Your task to perform on an android device: search for starred emails in the gmail app Image 0: 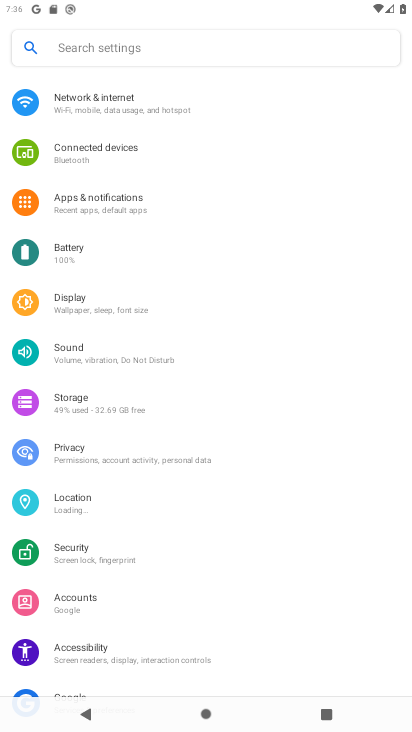
Step 0: drag from (214, 638) to (209, 463)
Your task to perform on an android device: search for starred emails in the gmail app Image 1: 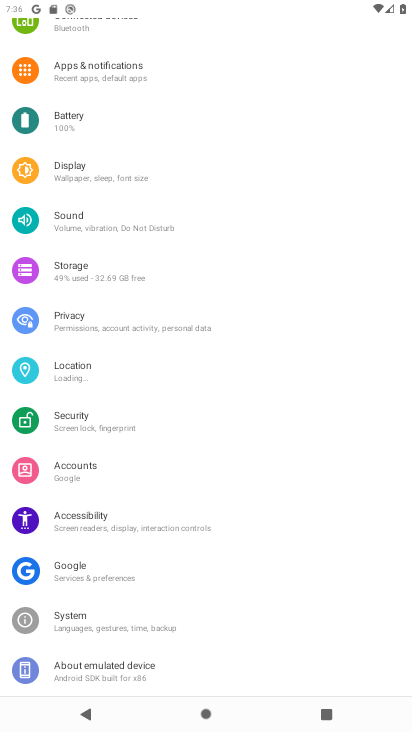
Step 1: press home button
Your task to perform on an android device: search for starred emails in the gmail app Image 2: 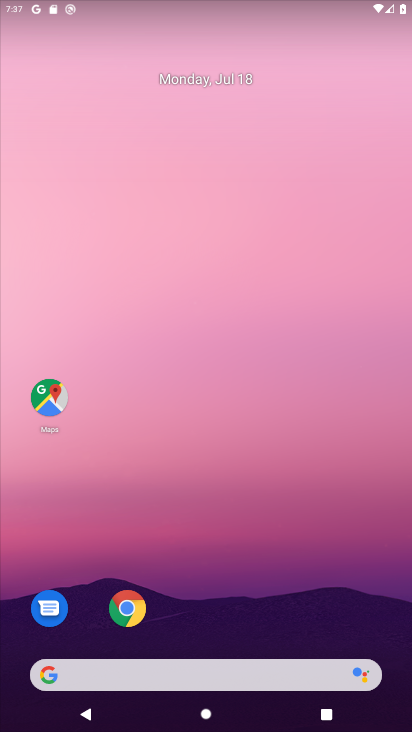
Step 2: drag from (220, 652) to (208, 19)
Your task to perform on an android device: search for starred emails in the gmail app Image 3: 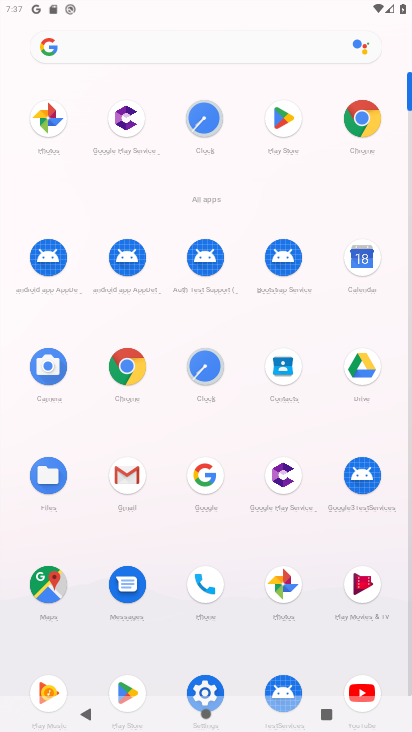
Step 3: click (124, 476)
Your task to perform on an android device: search for starred emails in the gmail app Image 4: 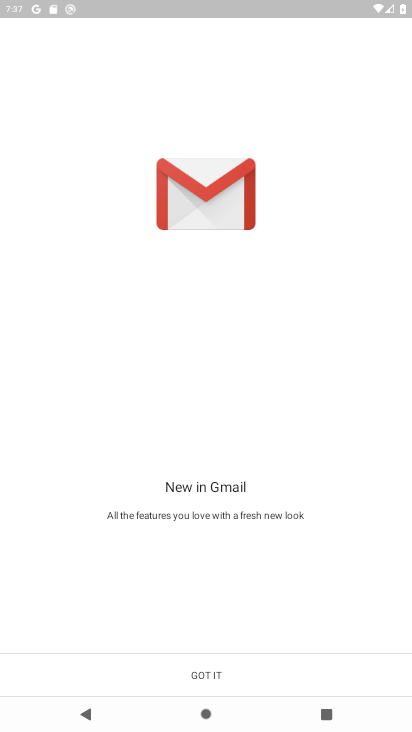
Step 4: click (199, 667)
Your task to perform on an android device: search for starred emails in the gmail app Image 5: 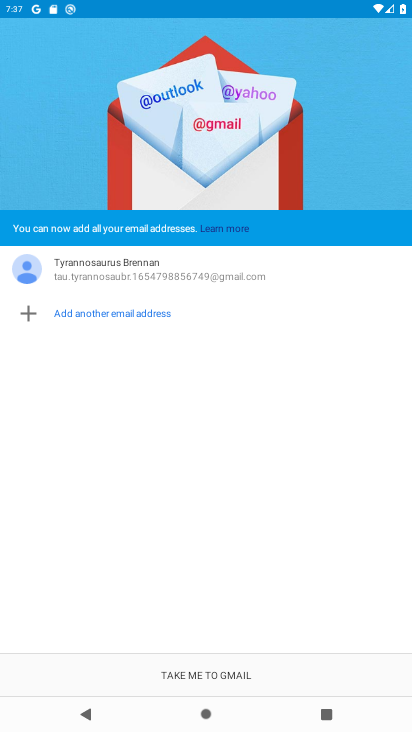
Step 5: click (198, 665)
Your task to perform on an android device: search for starred emails in the gmail app Image 6: 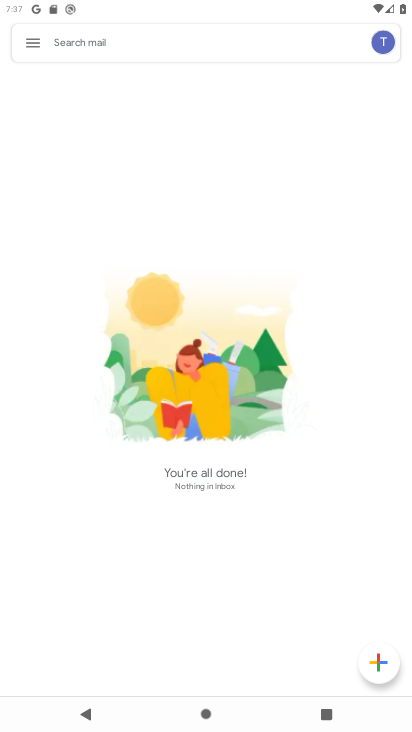
Step 6: click (30, 39)
Your task to perform on an android device: search for starred emails in the gmail app Image 7: 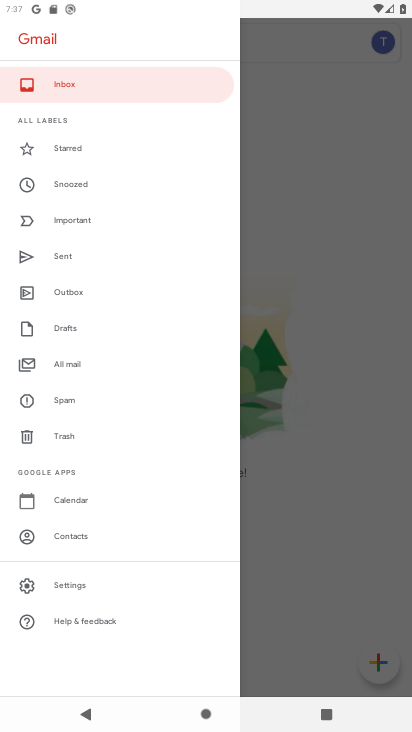
Step 7: click (76, 140)
Your task to perform on an android device: search for starred emails in the gmail app Image 8: 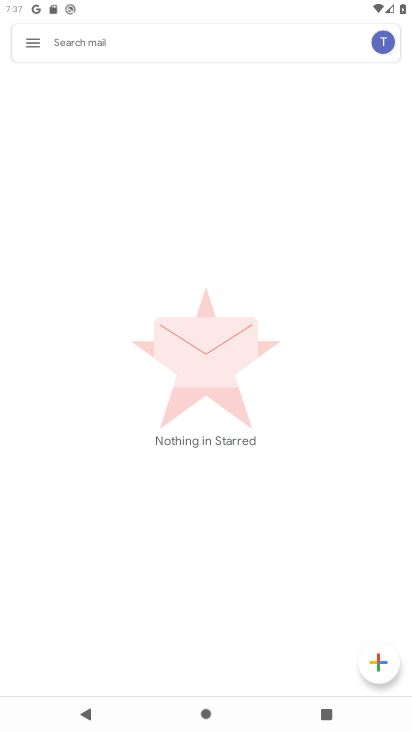
Step 8: task complete